Your task to perform on an android device: Open maps Image 0: 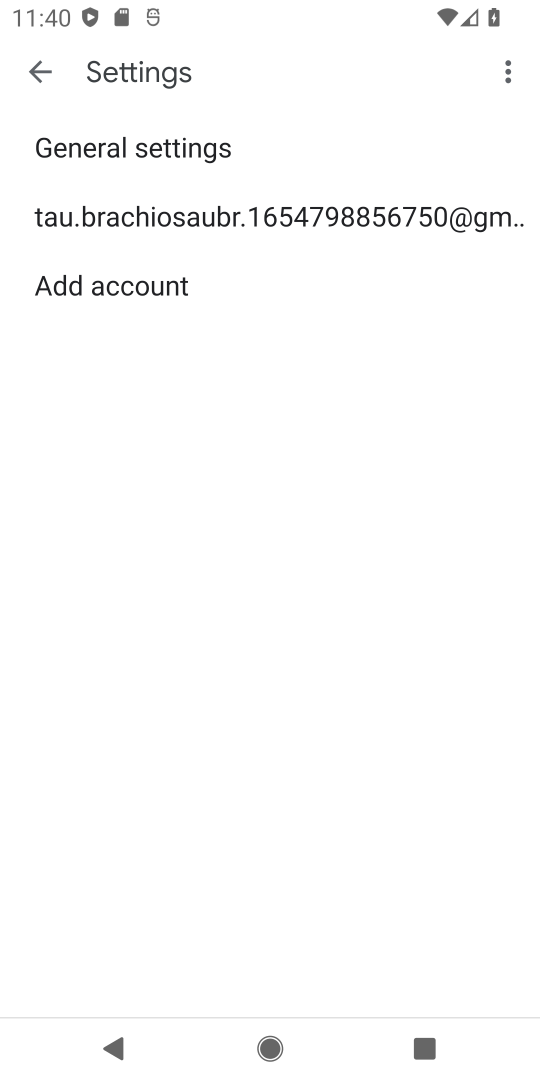
Step 0: press home button
Your task to perform on an android device: Open maps Image 1: 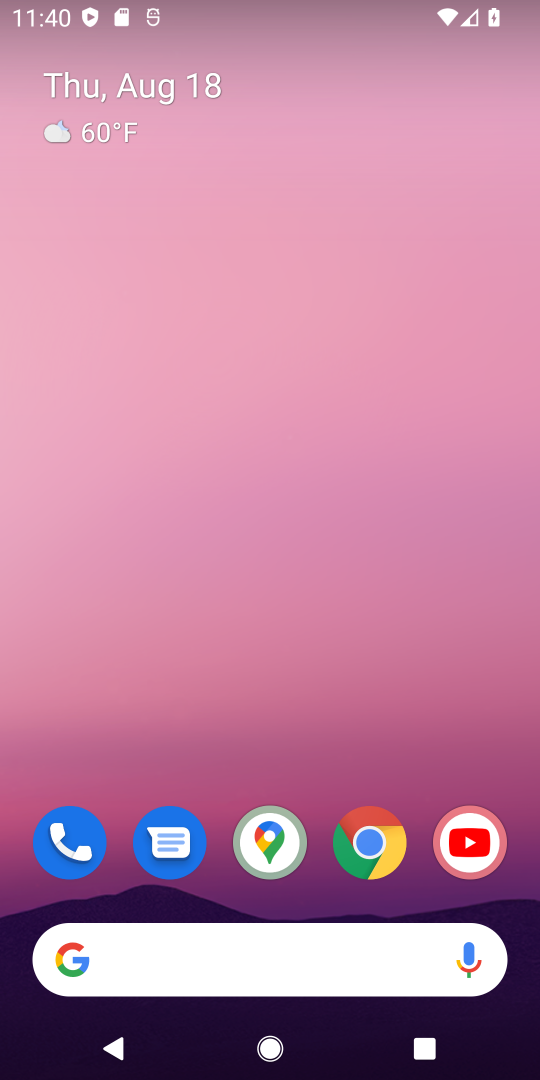
Step 1: click (253, 851)
Your task to perform on an android device: Open maps Image 2: 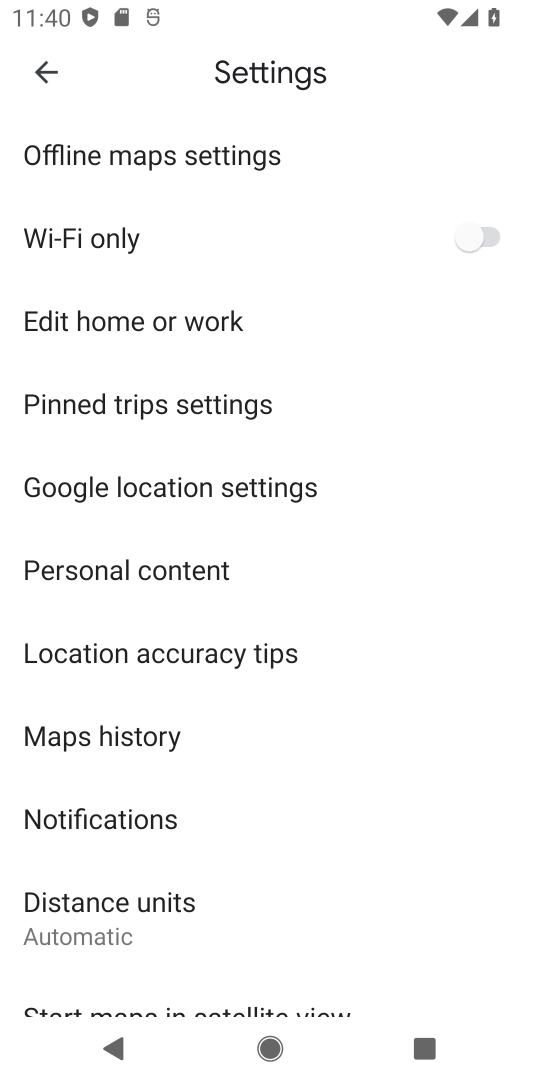
Step 2: click (59, 76)
Your task to perform on an android device: Open maps Image 3: 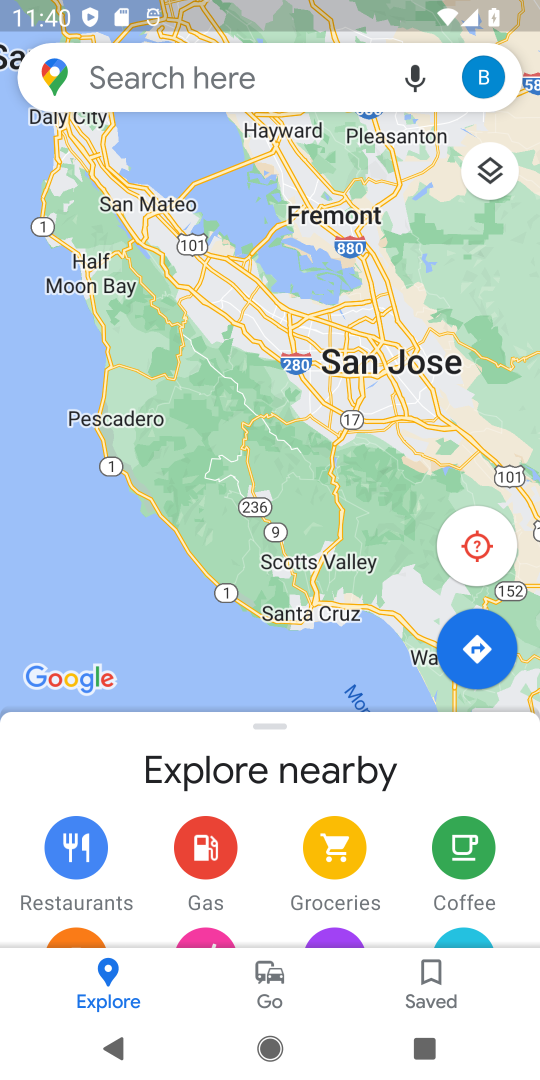
Step 3: task complete